Your task to perform on an android device: turn off sleep mode Image 0: 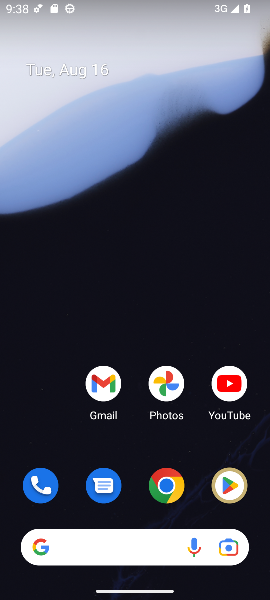
Step 0: drag from (172, 452) to (87, 123)
Your task to perform on an android device: turn off sleep mode Image 1: 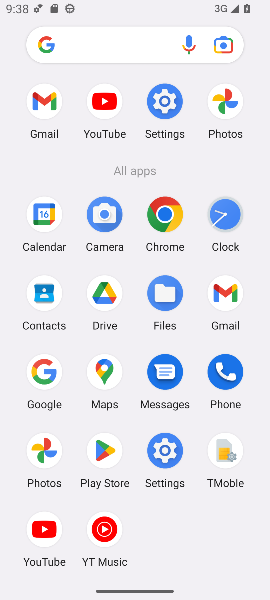
Step 1: click (169, 464)
Your task to perform on an android device: turn off sleep mode Image 2: 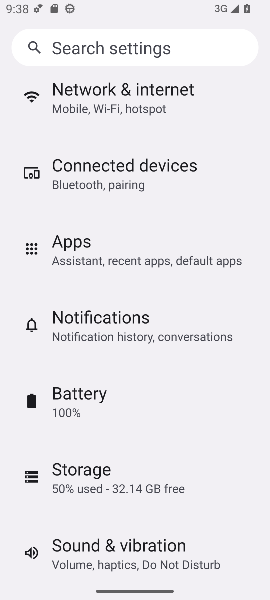
Step 2: drag from (184, 448) to (141, 133)
Your task to perform on an android device: turn off sleep mode Image 3: 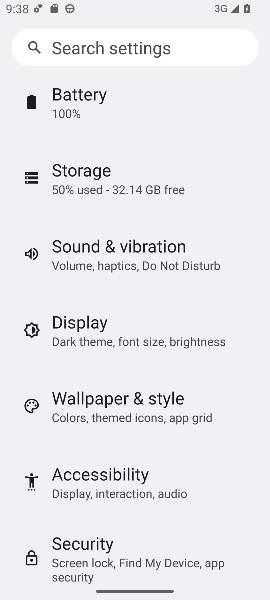
Step 3: click (181, 347)
Your task to perform on an android device: turn off sleep mode Image 4: 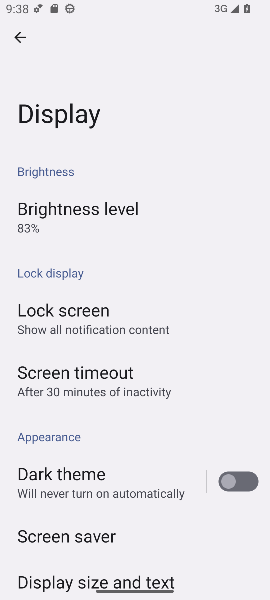
Step 4: task complete